Your task to perform on an android device: turn off location history Image 0: 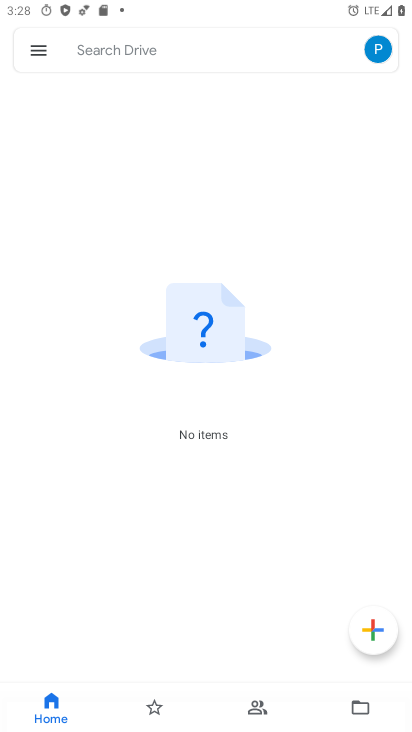
Step 0: press home button
Your task to perform on an android device: turn off location history Image 1: 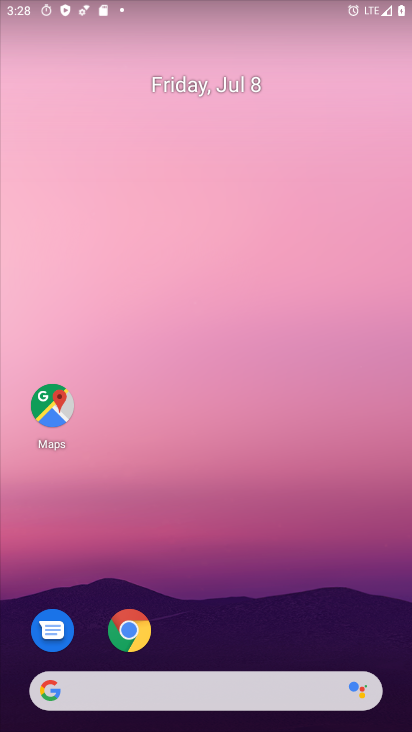
Step 1: drag from (229, 493) to (217, 169)
Your task to perform on an android device: turn off location history Image 2: 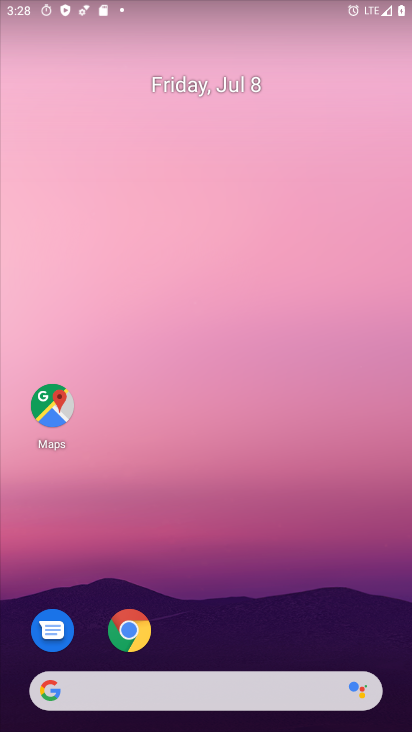
Step 2: drag from (222, 364) to (197, 75)
Your task to perform on an android device: turn off location history Image 3: 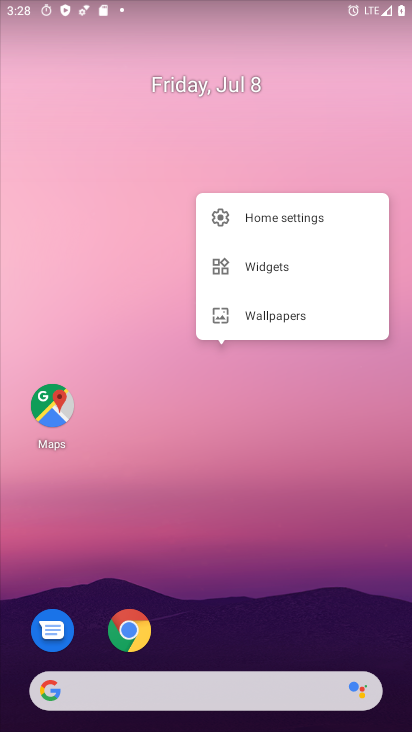
Step 3: click (206, 493)
Your task to perform on an android device: turn off location history Image 4: 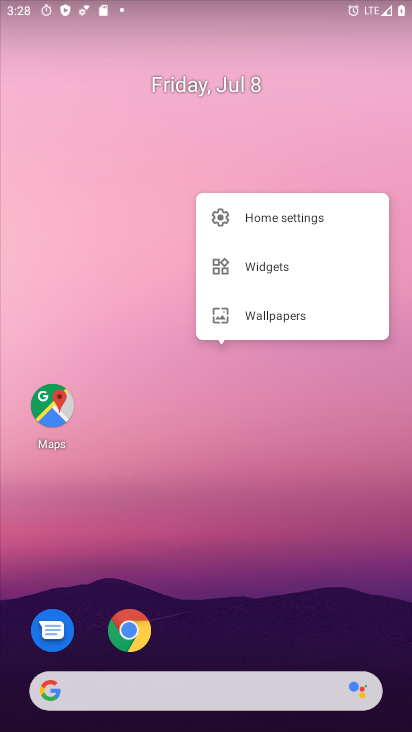
Step 4: click (206, 493)
Your task to perform on an android device: turn off location history Image 5: 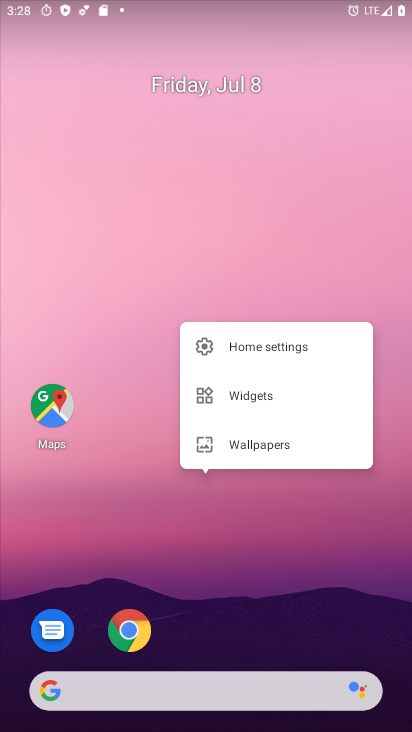
Step 5: drag from (206, 493) to (189, 265)
Your task to perform on an android device: turn off location history Image 6: 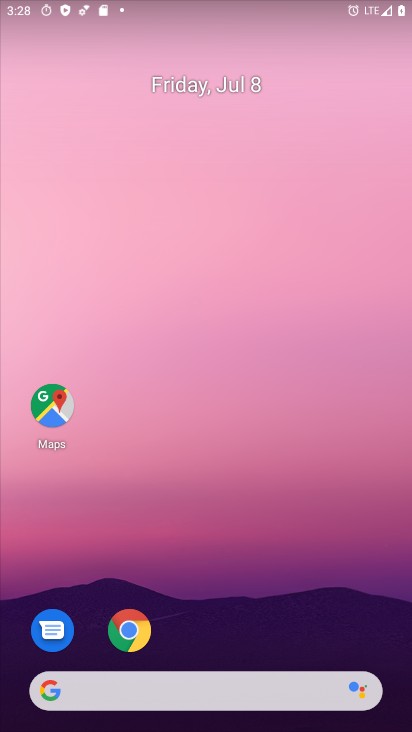
Step 6: click (76, 312)
Your task to perform on an android device: turn off location history Image 7: 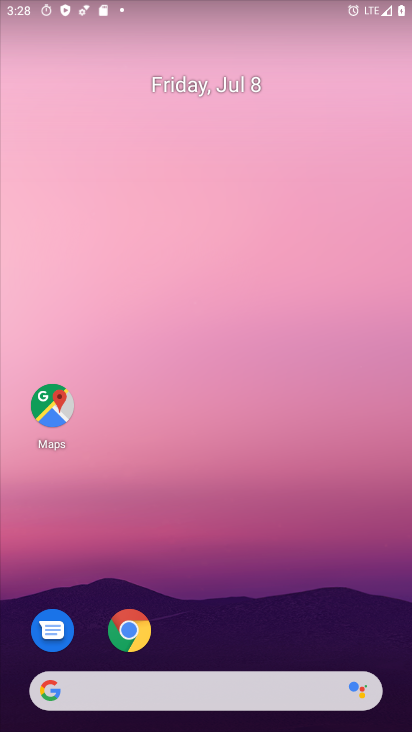
Step 7: drag from (183, 375) to (159, 182)
Your task to perform on an android device: turn off location history Image 8: 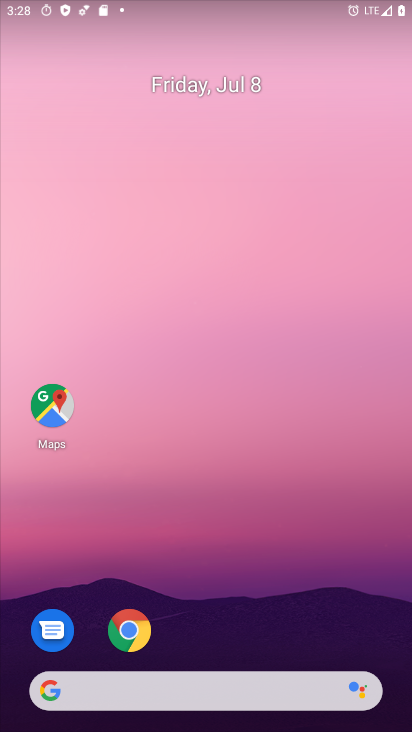
Step 8: drag from (223, 423) to (168, 83)
Your task to perform on an android device: turn off location history Image 9: 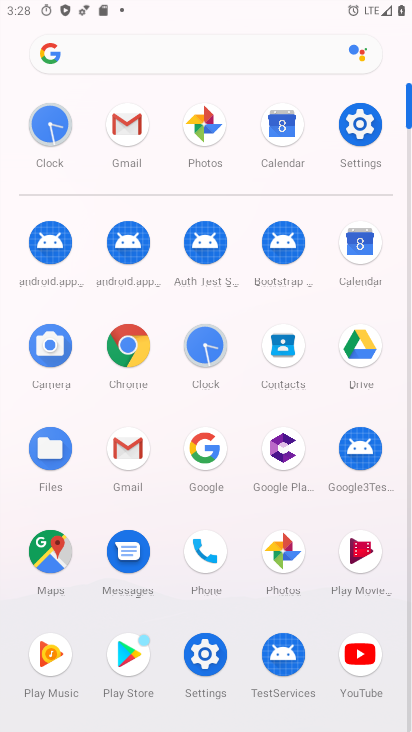
Step 9: click (364, 140)
Your task to perform on an android device: turn off location history Image 10: 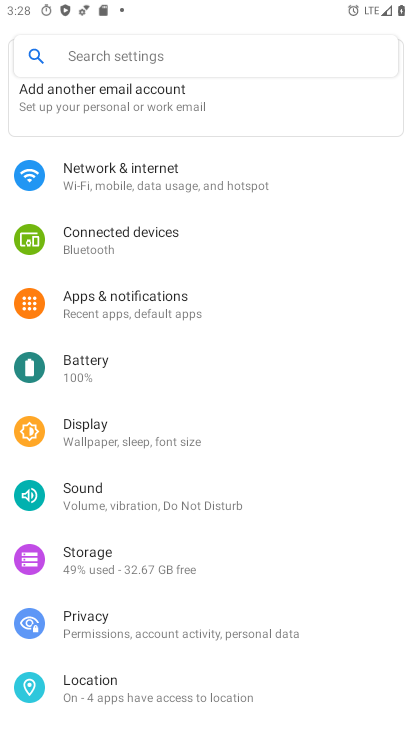
Step 10: click (74, 690)
Your task to perform on an android device: turn off location history Image 11: 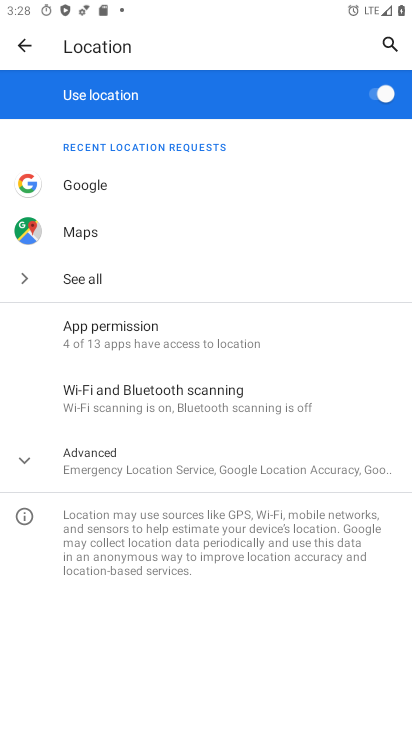
Step 11: click (74, 461)
Your task to perform on an android device: turn off location history Image 12: 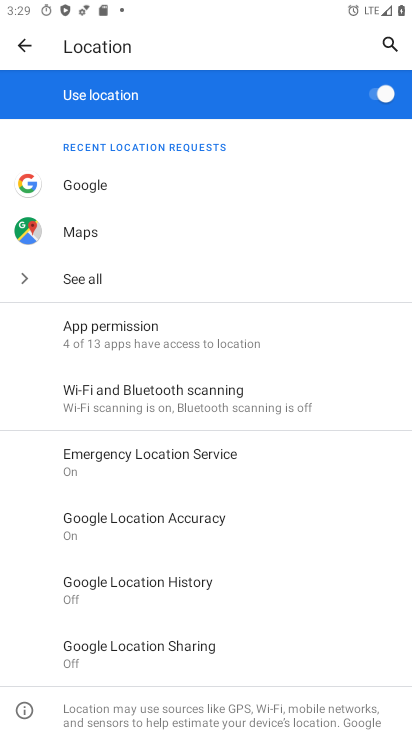
Step 12: task complete